Your task to perform on an android device: What's the price of the 1000-Watt EGO Power+ Snow Blower? Image 0: 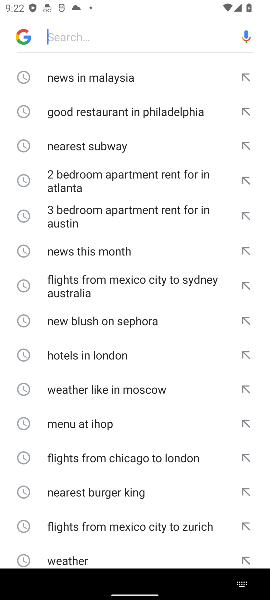
Step 0: press home button
Your task to perform on an android device: What's the price of the 1000-Watt EGO Power+ Snow Blower? Image 1: 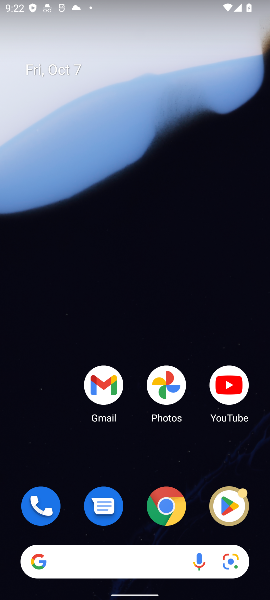
Step 1: click (163, 510)
Your task to perform on an android device: What's the price of the 1000-Watt EGO Power+ Snow Blower? Image 2: 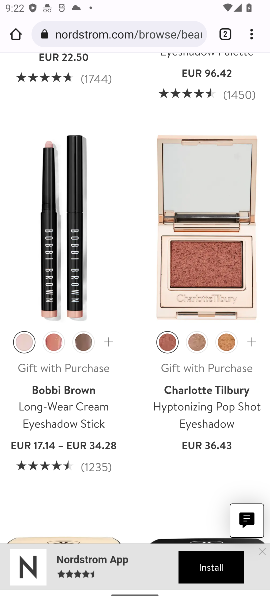
Step 2: click (178, 24)
Your task to perform on an android device: What's the price of the 1000-Watt EGO Power+ Snow Blower? Image 3: 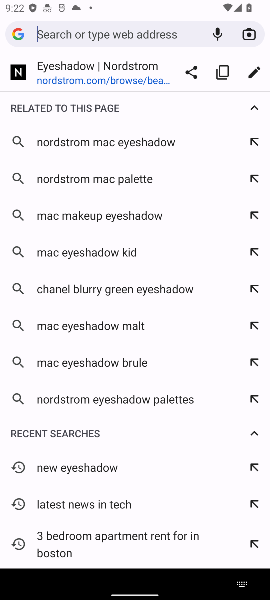
Step 3: type " price of the 1000-Watt EGO Power+ Snow Blower"
Your task to perform on an android device: What's the price of the 1000-Watt EGO Power+ Snow Blower? Image 4: 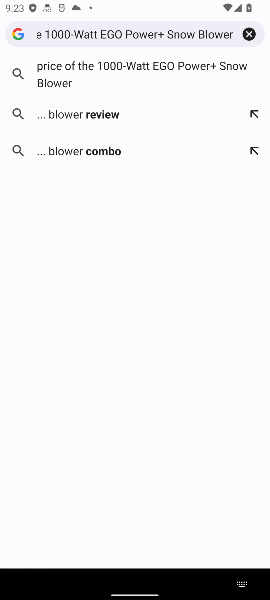
Step 4: click (82, 65)
Your task to perform on an android device: What's the price of the 1000-Watt EGO Power+ Snow Blower? Image 5: 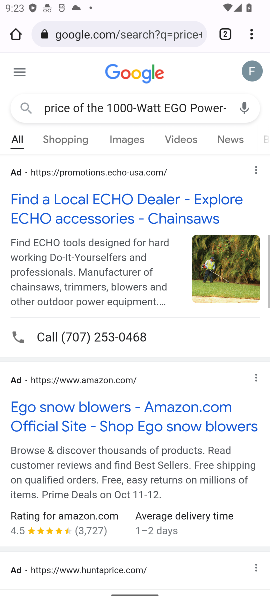
Step 5: drag from (82, 454) to (149, 328)
Your task to perform on an android device: What's the price of the 1000-Watt EGO Power+ Snow Blower? Image 6: 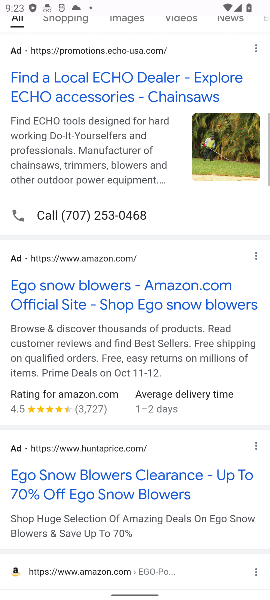
Step 6: drag from (131, 180) to (87, 376)
Your task to perform on an android device: What's the price of the 1000-Watt EGO Power+ Snow Blower? Image 7: 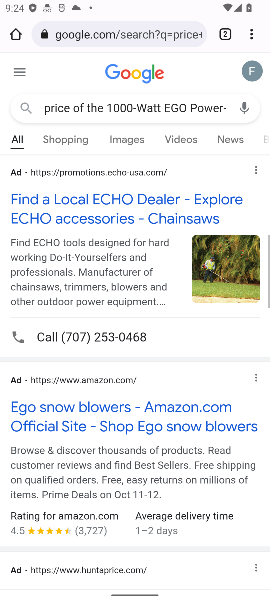
Step 7: click (125, 202)
Your task to perform on an android device: What's the price of the 1000-Watt EGO Power+ Snow Blower? Image 8: 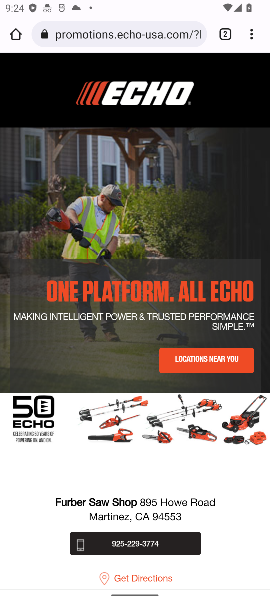
Step 8: task complete